Your task to perform on an android device: Search for seafood restaurants on Google Maps Image 0: 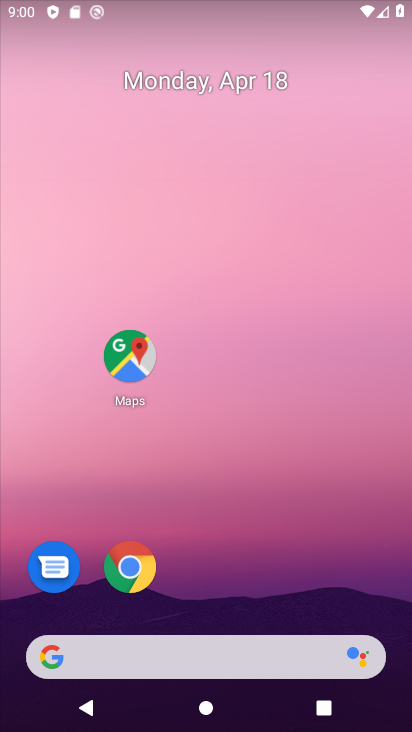
Step 0: click (143, 360)
Your task to perform on an android device: Search for seafood restaurants on Google Maps Image 1: 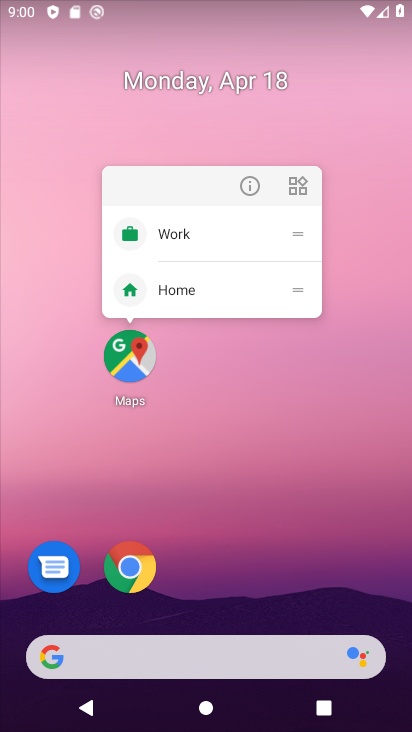
Step 1: drag from (259, 677) to (320, 317)
Your task to perform on an android device: Search for seafood restaurants on Google Maps Image 2: 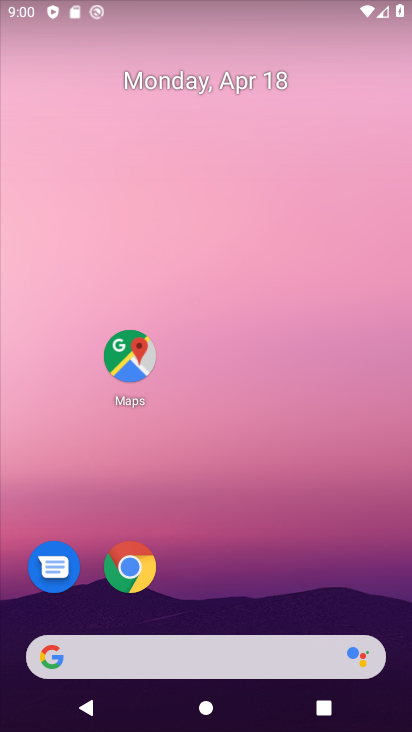
Step 2: drag from (268, 696) to (345, 312)
Your task to perform on an android device: Search for seafood restaurants on Google Maps Image 3: 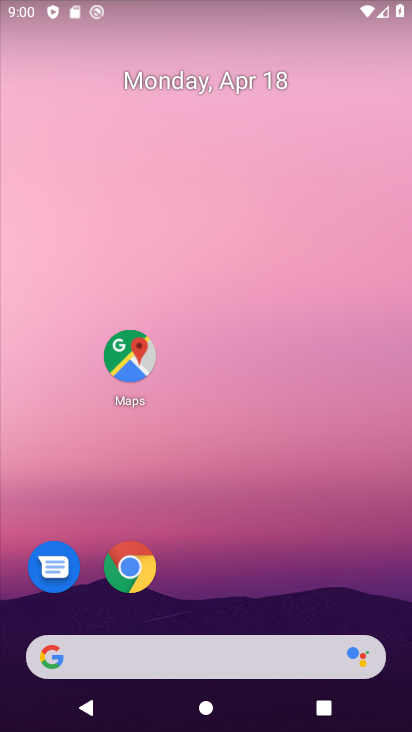
Step 3: drag from (239, 678) to (241, 282)
Your task to perform on an android device: Search for seafood restaurants on Google Maps Image 4: 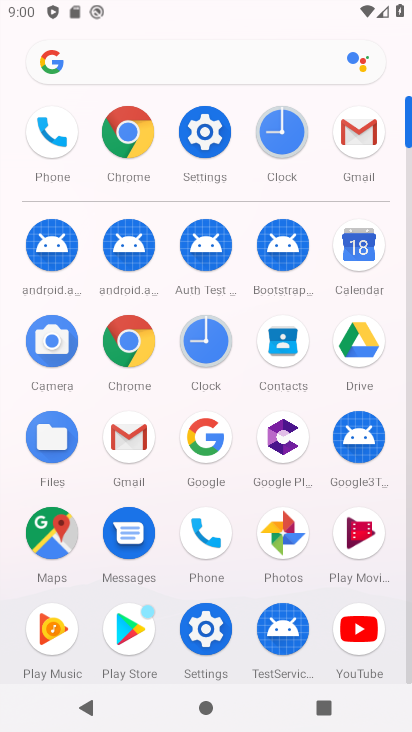
Step 4: click (23, 523)
Your task to perform on an android device: Search for seafood restaurants on Google Maps Image 5: 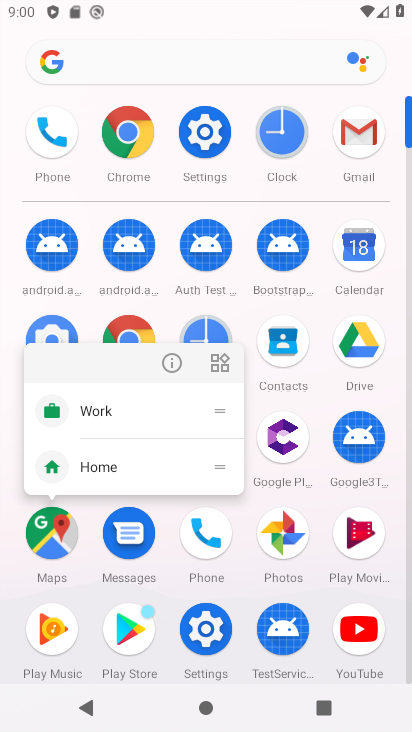
Step 5: click (28, 533)
Your task to perform on an android device: Search for seafood restaurants on Google Maps Image 6: 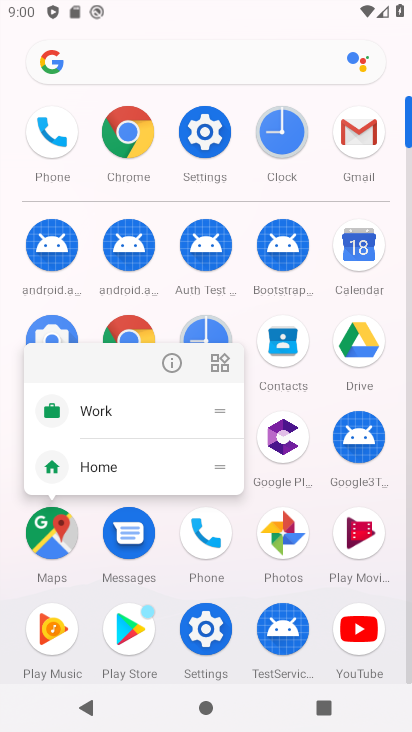
Step 6: click (43, 561)
Your task to perform on an android device: Search for seafood restaurants on Google Maps Image 7: 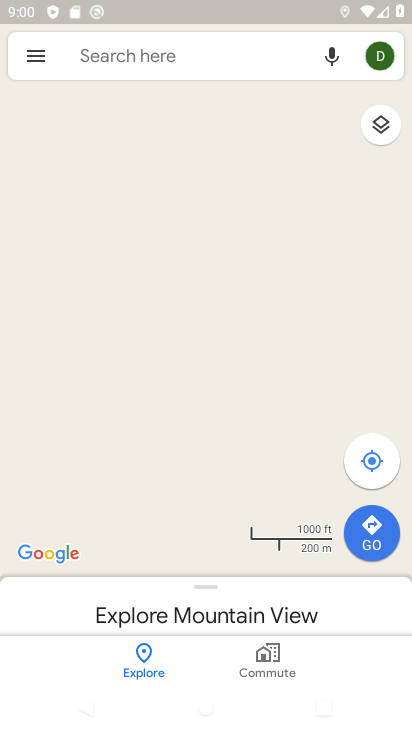
Step 7: click (193, 67)
Your task to perform on an android device: Search for seafood restaurants on Google Maps Image 8: 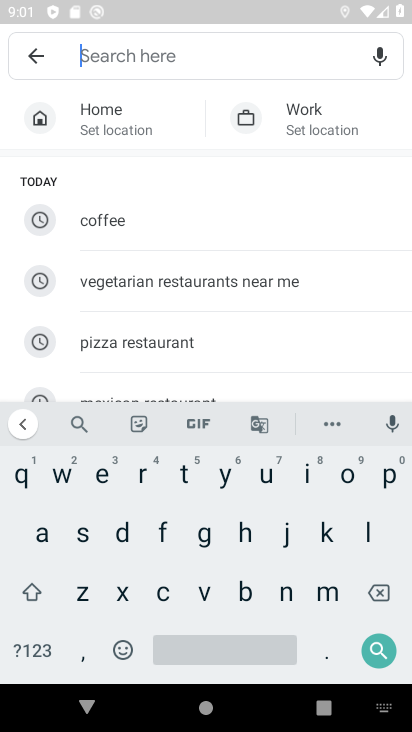
Step 8: click (85, 539)
Your task to perform on an android device: Search for seafood restaurants on Google Maps Image 9: 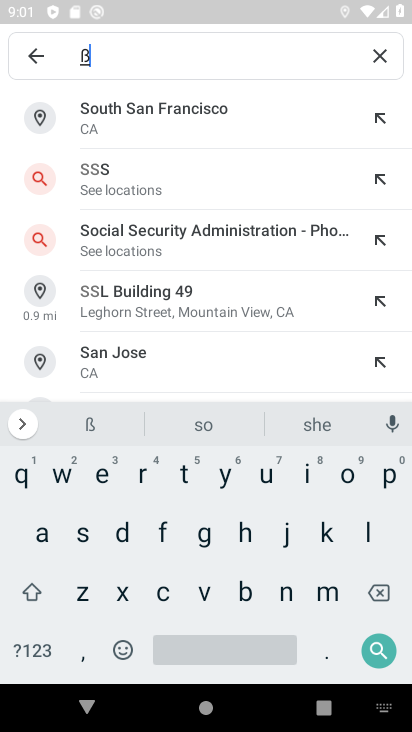
Step 9: click (381, 66)
Your task to perform on an android device: Search for seafood restaurants on Google Maps Image 10: 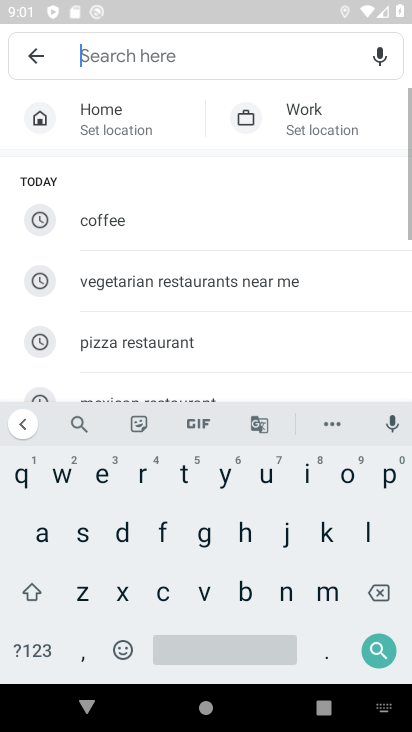
Step 10: click (80, 534)
Your task to perform on an android device: Search for seafood restaurants on Google Maps Image 11: 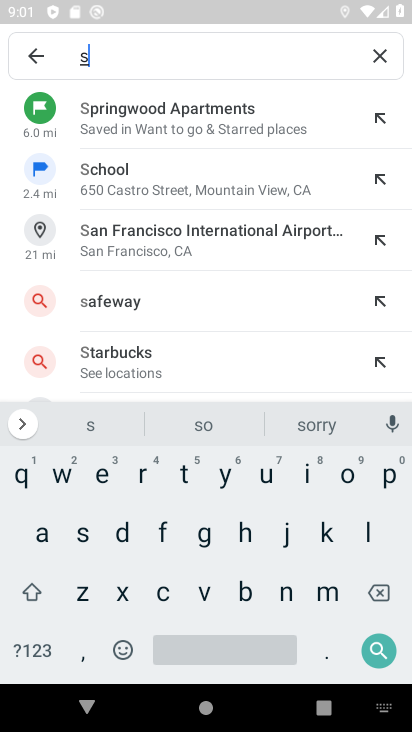
Step 11: click (105, 473)
Your task to perform on an android device: Search for seafood restaurants on Google Maps Image 12: 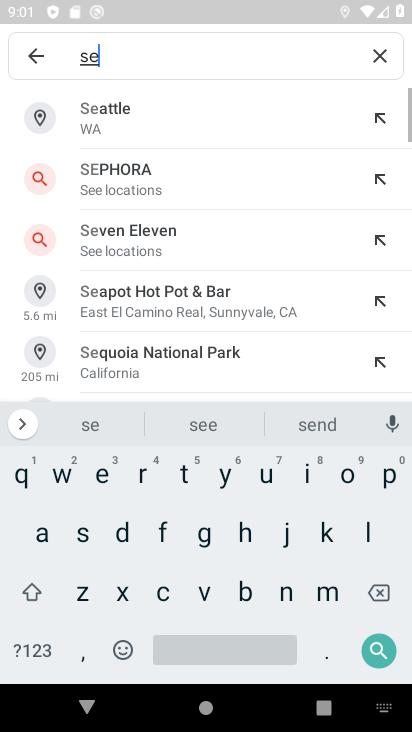
Step 12: click (44, 536)
Your task to perform on an android device: Search for seafood restaurants on Google Maps Image 13: 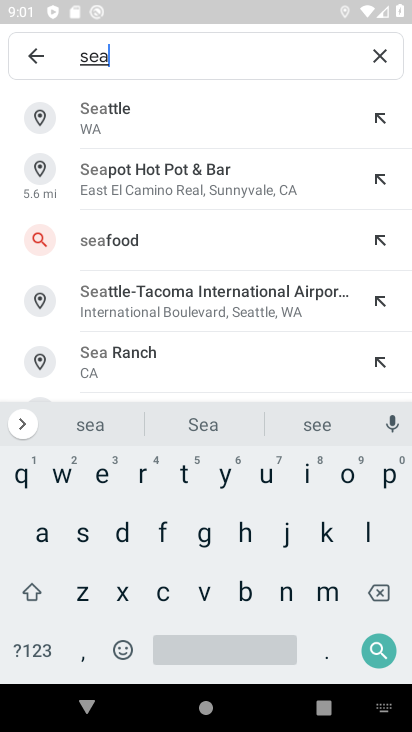
Step 13: click (170, 524)
Your task to perform on an android device: Search for seafood restaurants on Google Maps Image 14: 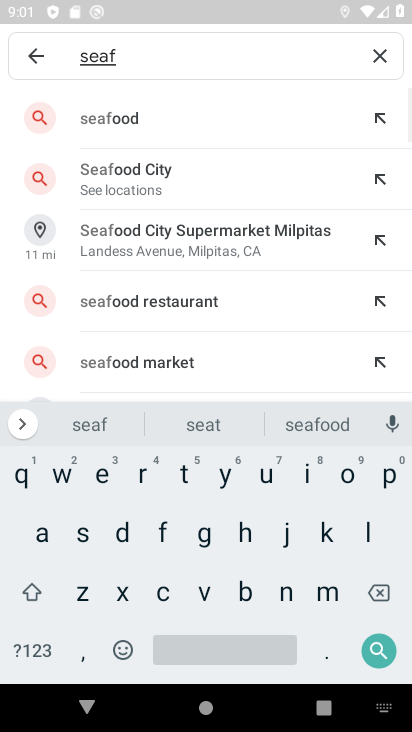
Step 14: click (197, 124)
Your task to perform on an android device: Search for seafood restaurants on Google Maps Image 15: 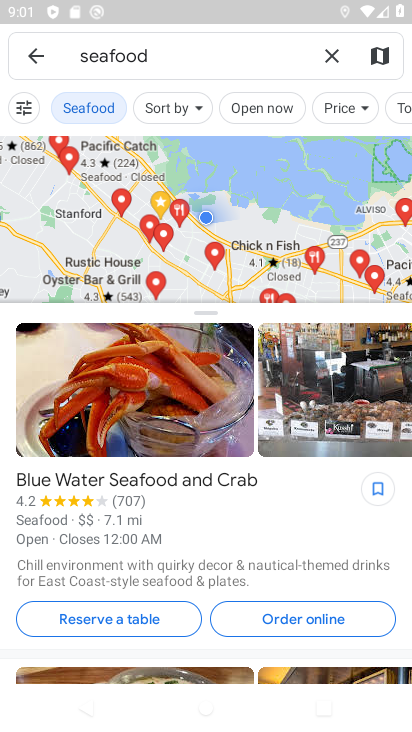
Step 15: task complete